Your task to perform on an android device: Show me popular games on the Play Store Image 0: 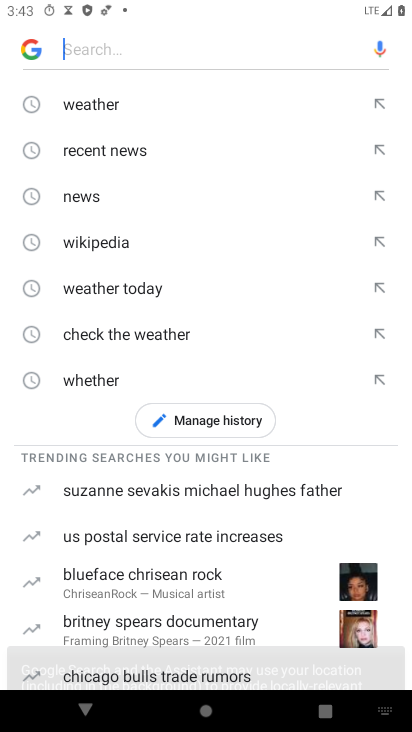
Step 0: press home button
Your task to perform on an android device: Show me popular games on the Play Store Image 1: 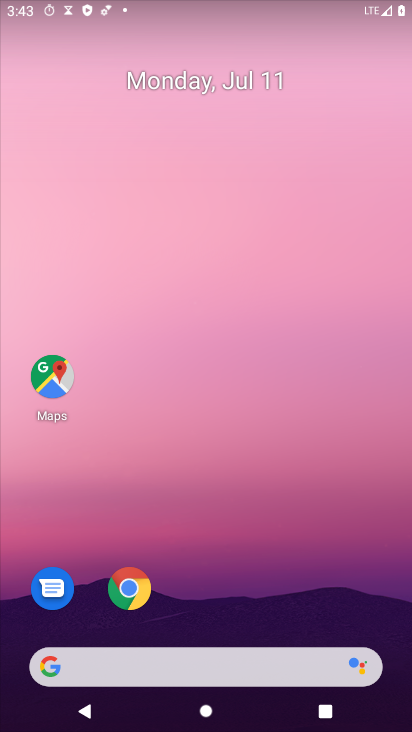
Step 1: drag from (239, 629) to (249, 228)
Your task to perform on an android device: Show me popular games on the Play Store Image 2: 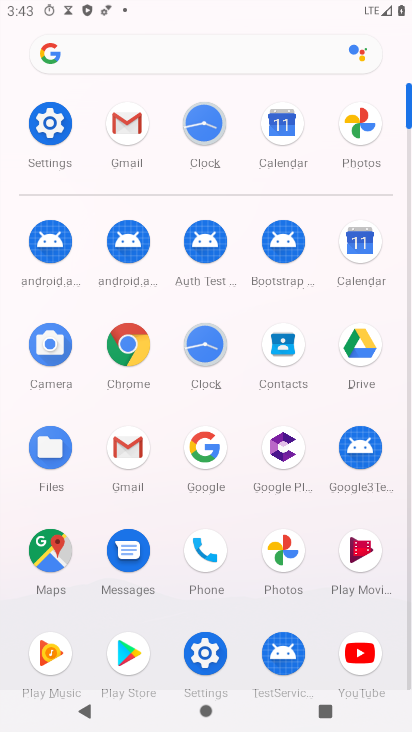
Step 2: click (132, 660)
Your task to perform on an android device: Show me popular games on the Play Store Image 3: 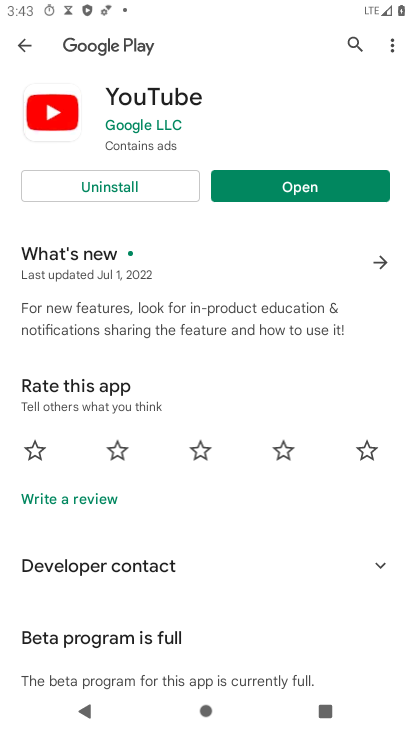
Step 3: click (24, 48)
Your task to perform on an android device: Show me popular games on the Play Store Image 4: 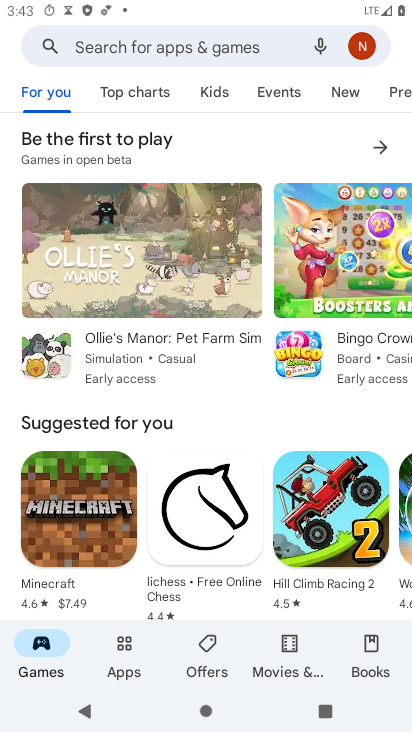
Step 4: click (161, 89)
Your task to perform on an android device: Show me popular games on the Play Store Image 5: 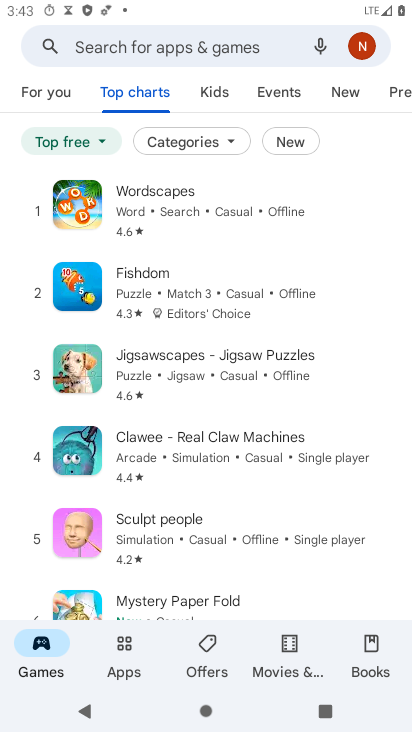
Step 5: task complete